Your task to perform on an android device: Open the calendar app, open the side menu, and click the "Day" option Image 0: 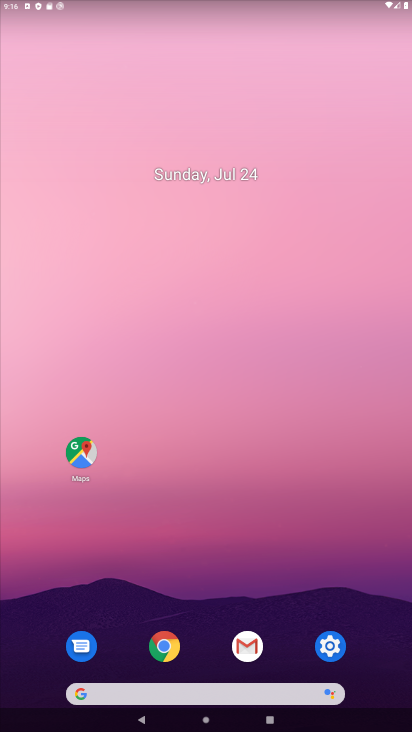
Step 0: click (158, 656)
Your task to perform on an android device: Open the calendar app, open the side menu, and click the "Day" option Image 1: 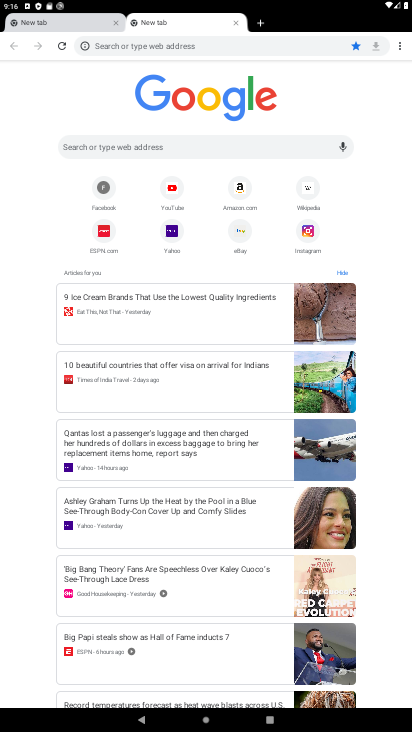
Step 1: press home button
Your task to perform on an android device: Open the calendar app, open the side menu, and click the "Day" option Image 2: 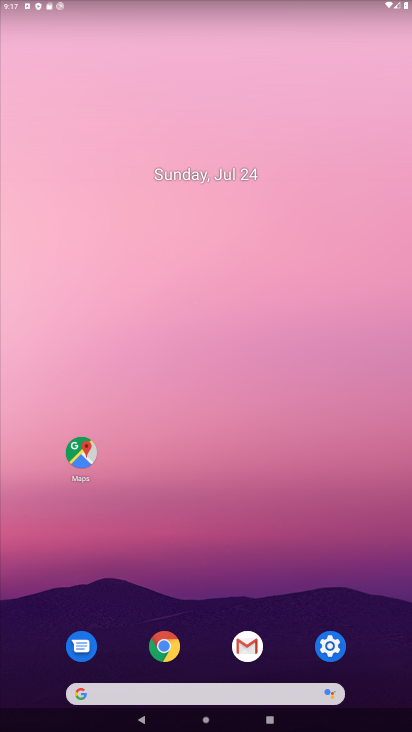
Step 2: drag from (217, 708) to (269, 117)
Your task to perform on an android device: Open the calendar app, open the side menu, and click the "Day" option Image 3: 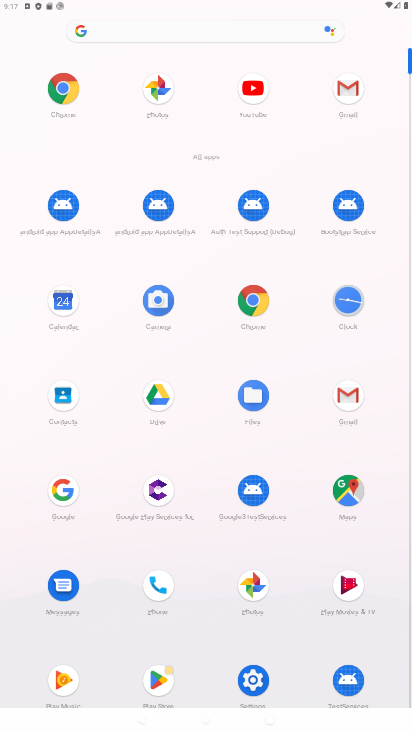
Step 3: click (53, 319)
Your task to perform on an android device: Open the calendar app, open the side menu, and click the "Day" option Image 4: 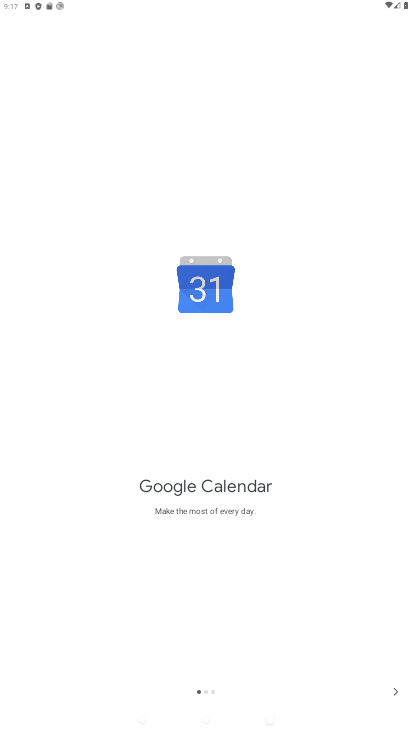
Step 4: click (397, 691)
Your task to perform on an android device: Open the calendar app, open the side menu, and click the "Day" option Image 5: 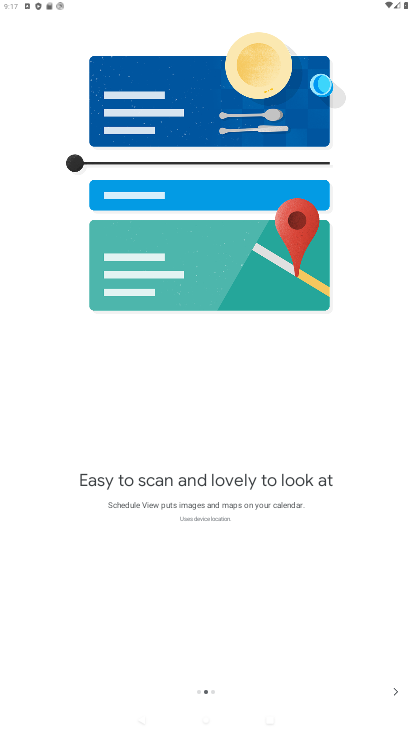
Step 5: click (397, 692)
Your task to perform on an android device: Open the calendar app, open the side menu, and click the "Day" option Image 6: 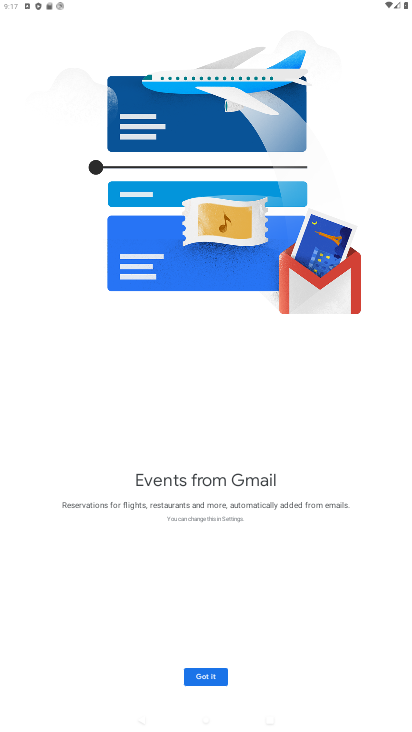
Step 6: click (196, 673)
Your task to perform on an android device: Open the calendar app, open the side menu, and click the "Day" option Image 7: 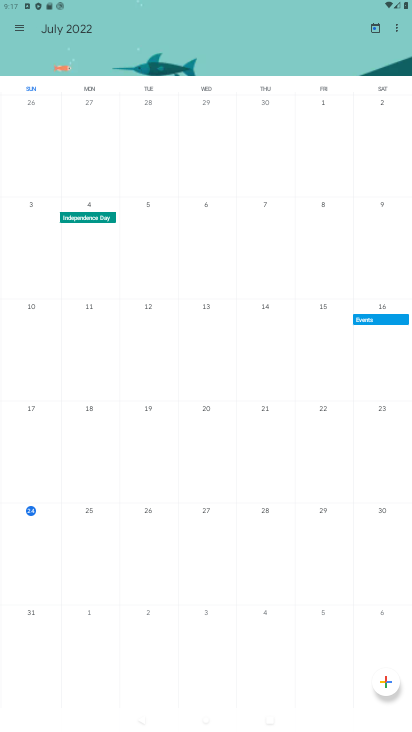
Step 7: click (15, 34)
Your task to perform on an android device: Open the calendar app, open the side menu, and click the "Day" option Image 8: 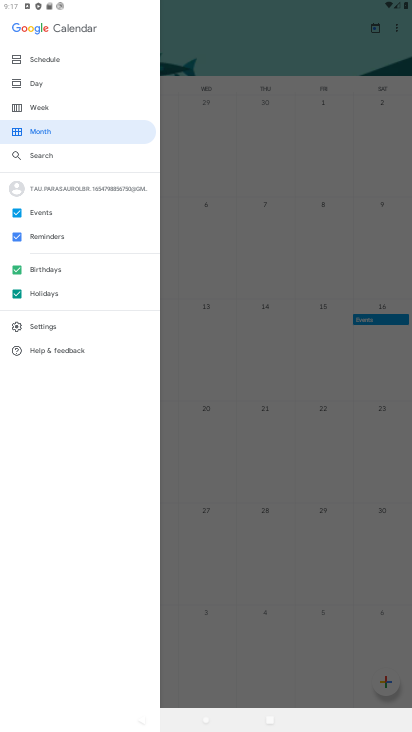
Step 8: click (35, 90)
Your task to perform on an android device: Open the calendar app, open the side menu, and click the "Day" option Image 9: 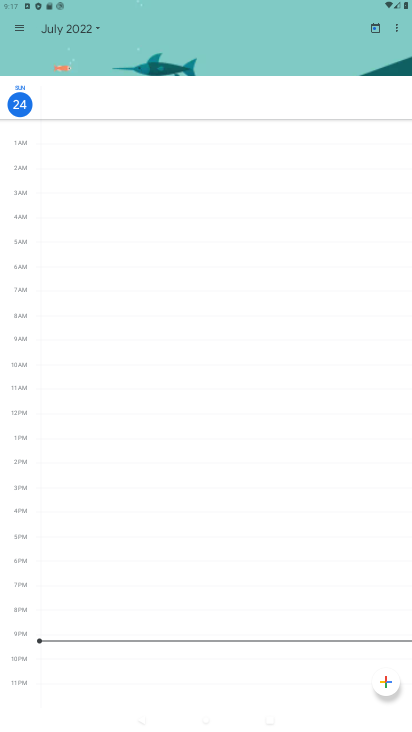
Step 9: task complete